Your task to perform on an android device: Go to notification settings Image 0: 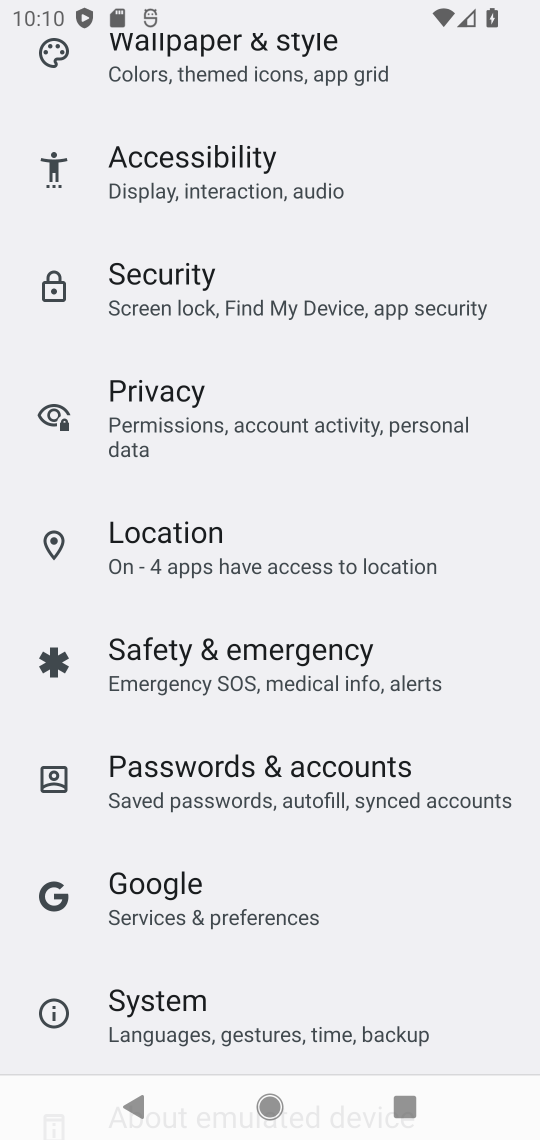
Step 0: drag from (293, 331) to (309, 1075)
Your task to perform on an android device: Go to notification settings Image 1: 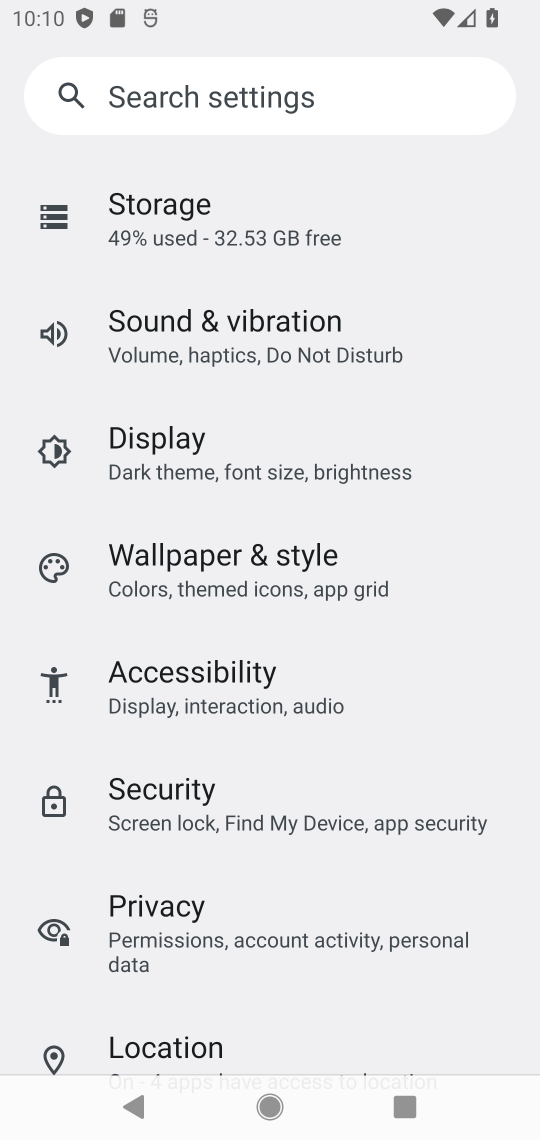
Step 1: drag from (226, 950) to (359, 172)
Your task to perform on an android device: Go to notification settings Image 2: 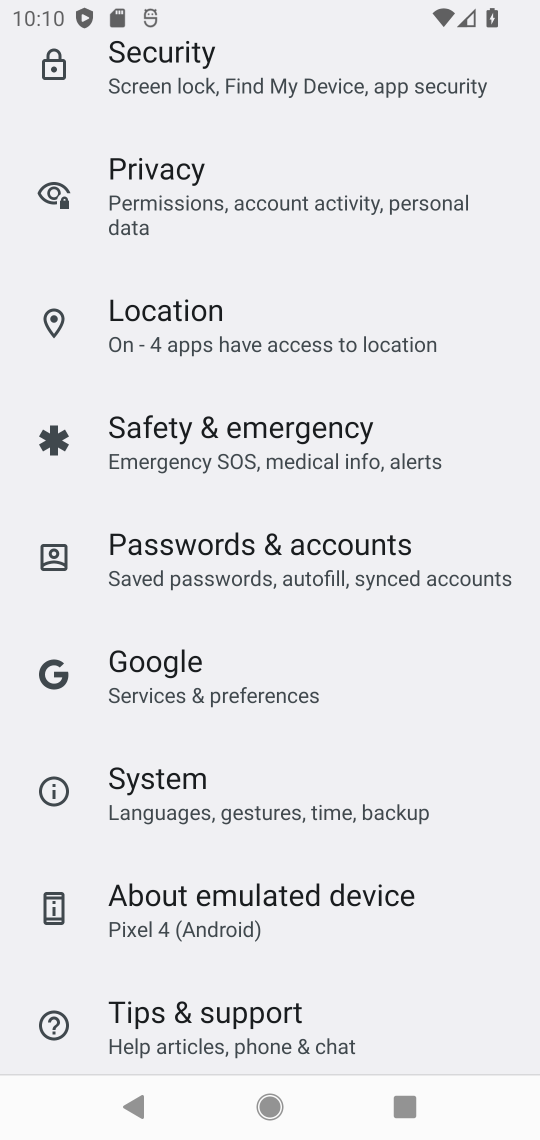
Step 2: drag from (254, 933) to (356, 207)
Your task to perform on an android device: Go to notification settings Image 3: 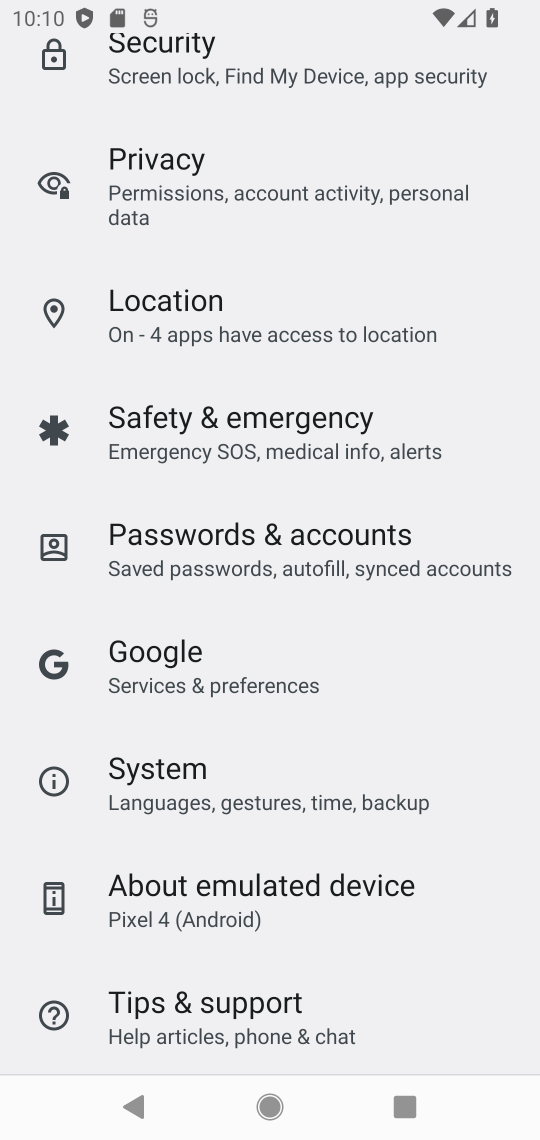
Step 3: drag from (319, 301) to (338, 949)
Your task to perform on an android device: Go to notification settings Image 4: 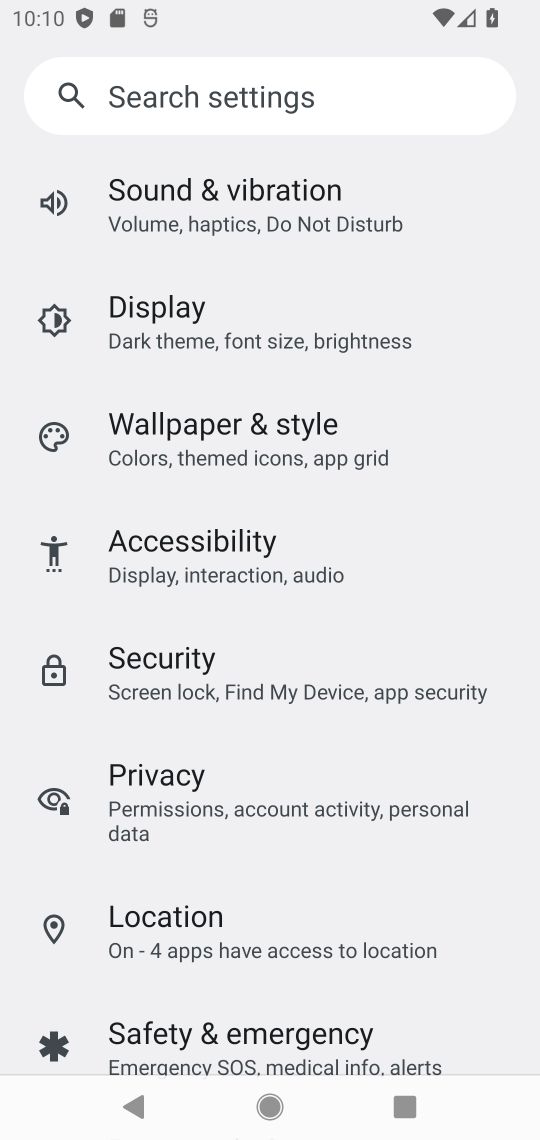
Step 4: drag from (329, 418) to (264, 976)
Your task to perform on an android device: Go to notification settings Image 5: 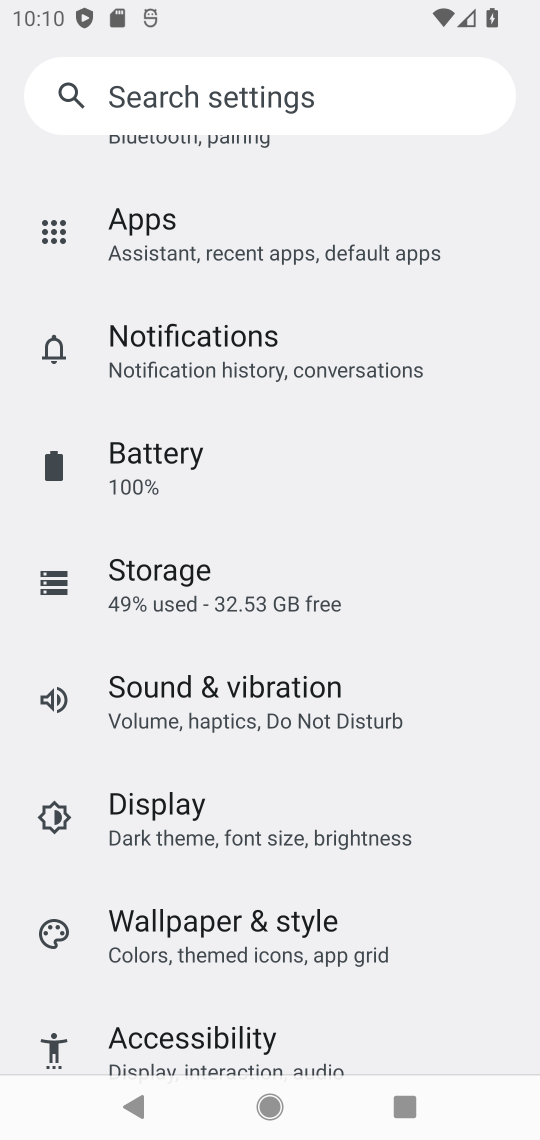
Step 5: click (204, 357)
Your task to perform on an android device: Go to notification settings Image 6: 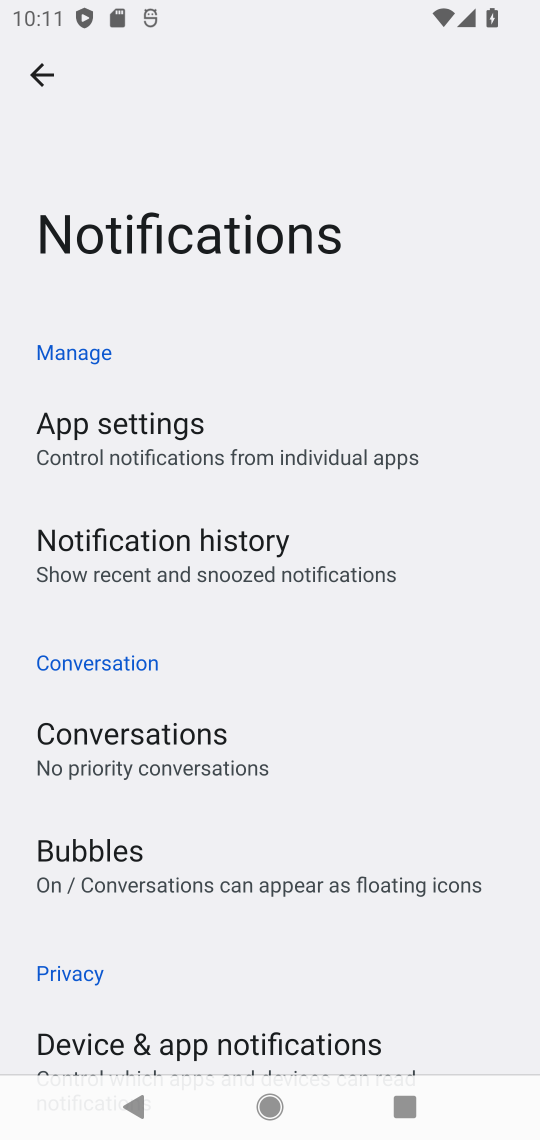
Step 6: task complete